Your task to perform on an android device: Search for Italian restaurants on Maps Image 0: 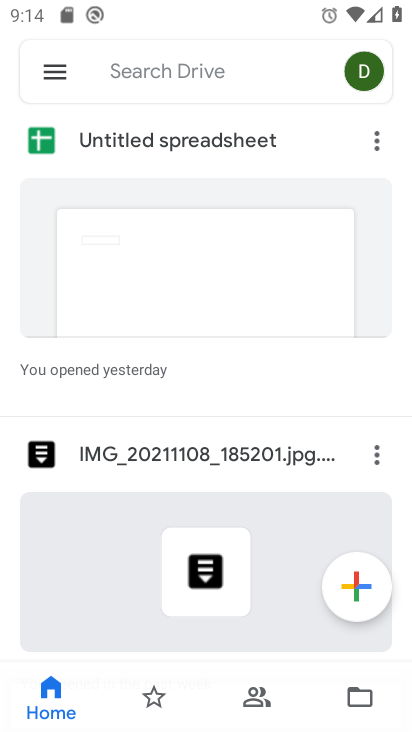
Step 0: press home button
Your task to perform on an android device: Search for Italian restaurants on Maps Image 1: 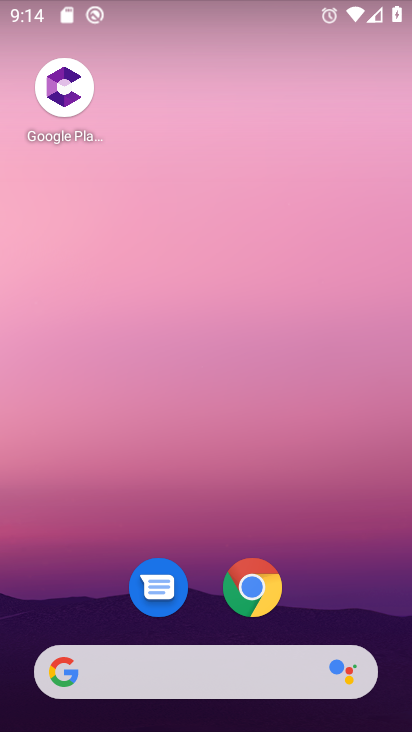
Step 1: drag from (205, 609) to (298, 93)
Your task to perform on an android device: Search for Italian restaurants on Maps Image 2: 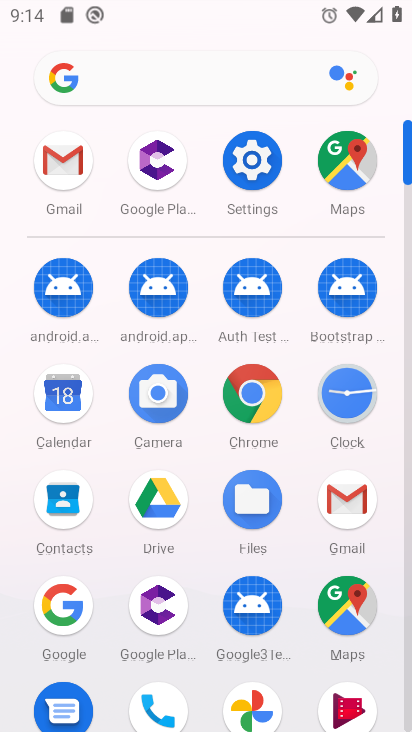
Step 2: click (367, 612)
Your task to perform on an android device: Search for Italian restaurants on Maps Image 3: 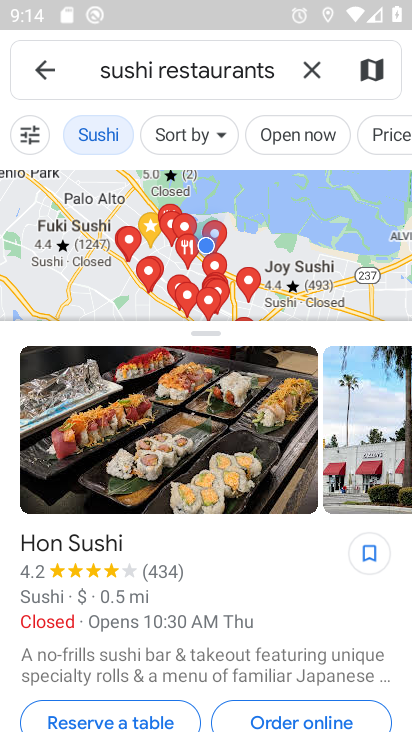
Step 3: click (134, 68)
Your task to perform on an android device: Search for Italian restaurants on Maps Image 4: 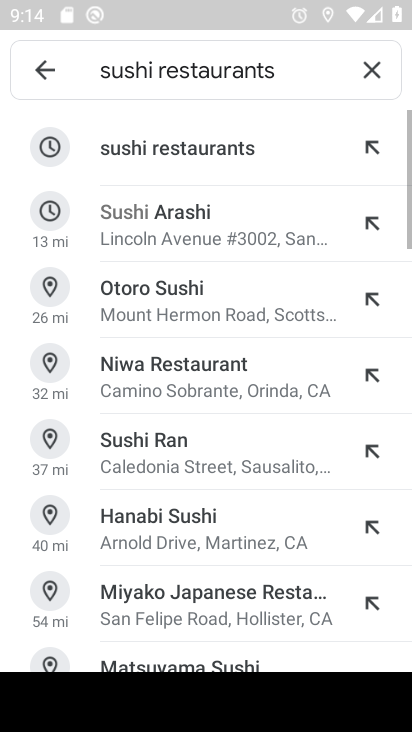
Step 4: click (135, 67)
Your task to perform on an android device: Search for Italian restaurants on Maps Image 5: 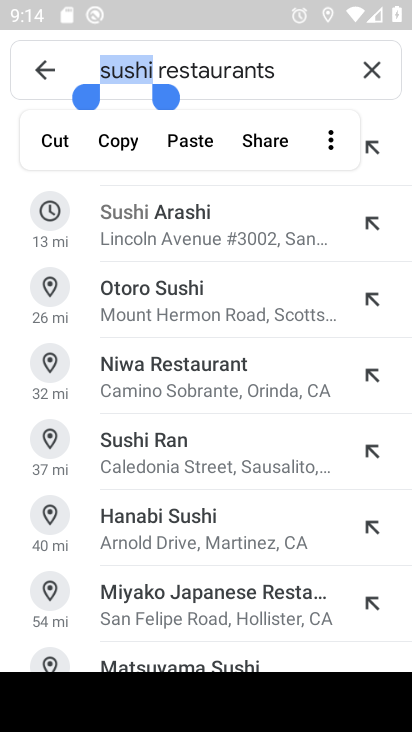
Step 5: type "italian"
Your task to perform on an android device: Search for Italian restaurants on Maps Image 6: 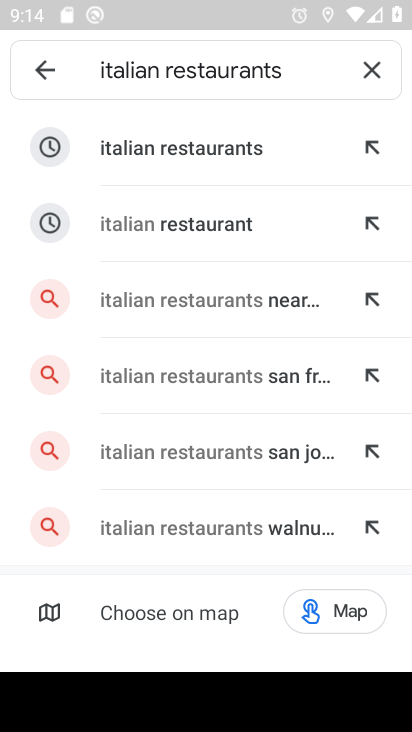
Step 6: click (254, 153)
Your task to perform on an android device: Search for Italian restaurants on Maps Image 7: 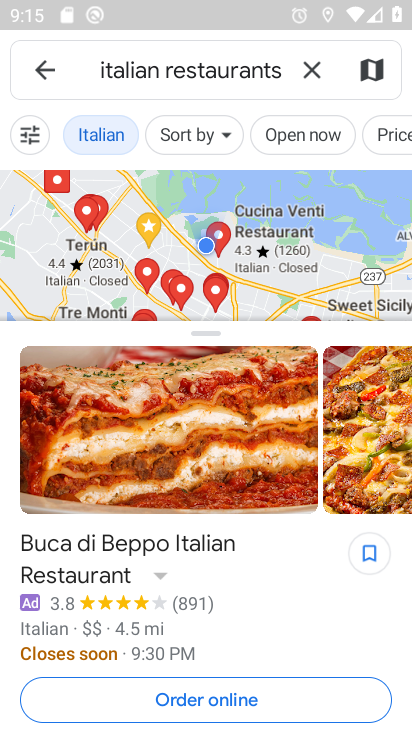
Step 7: task complete